Your task to perform on an android device: Open notification settings Image 0: 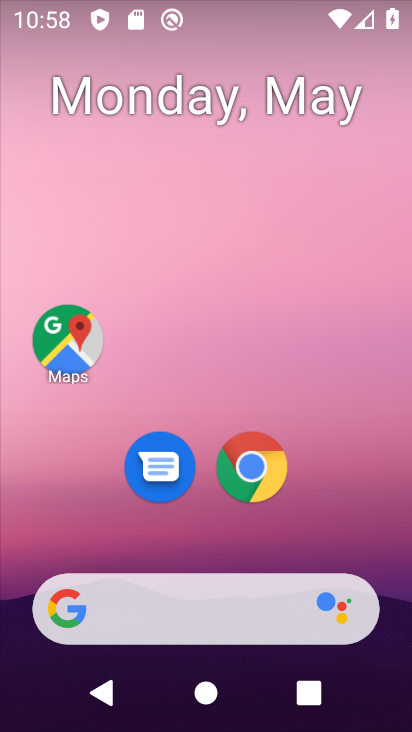
Step 0: drag from (380, 516) to (339, 163)
Your task to perform on an android device: Open notification settings Image 1: 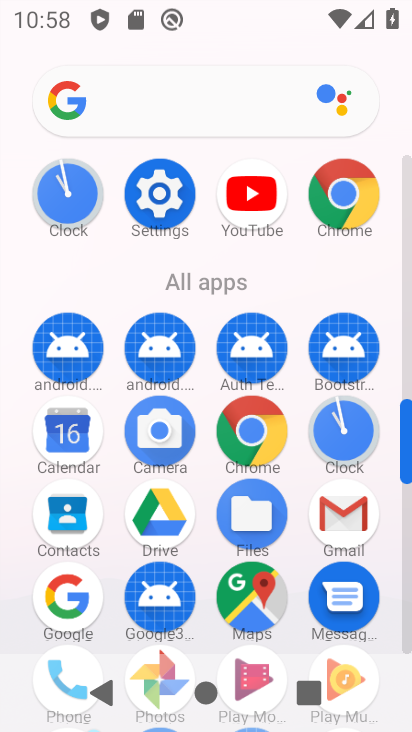
Step 1: click (168, 229)
Your task to perform on an android device: Open notification settings Image 2: 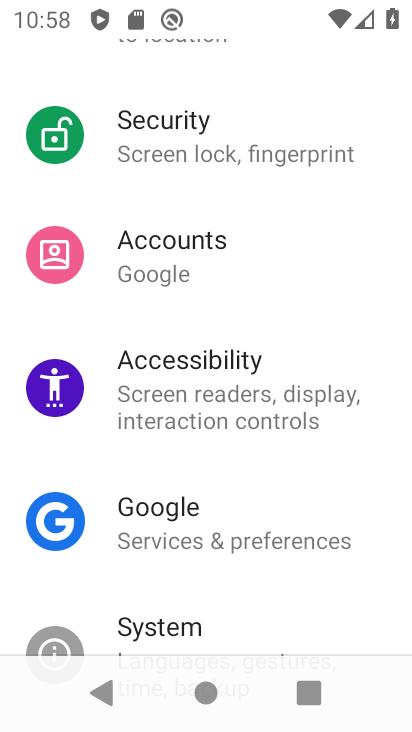
Step 2: drag from (254, 310) to (287, 694)
Your task to perform on an android device: Open notification settings Image 3: 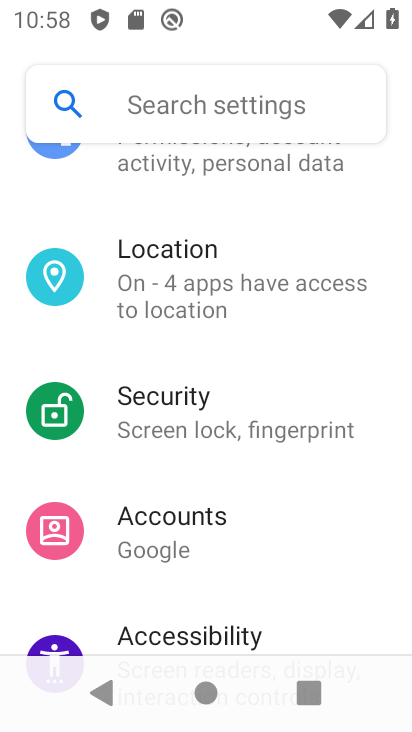
Step 3: drag from (260, 291) to (377, 693)
Your task to perform on an android device: Open notification settings Image 4: 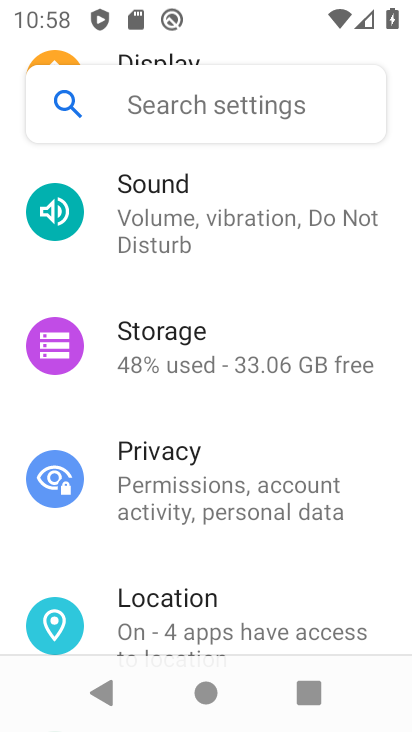
Step 4: drag from (264, 266) to (313, 713)
Your task to perform on an android device: Open notification settings Image 5: 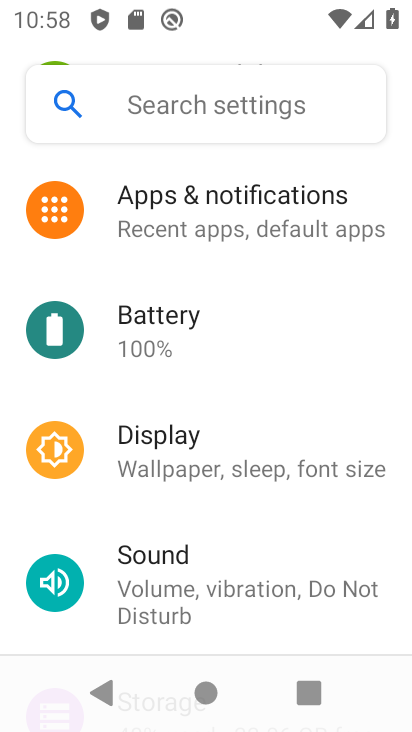
Step 5: click (300, 239)
Your task to perform on an android device: Open notification settings Image 6: 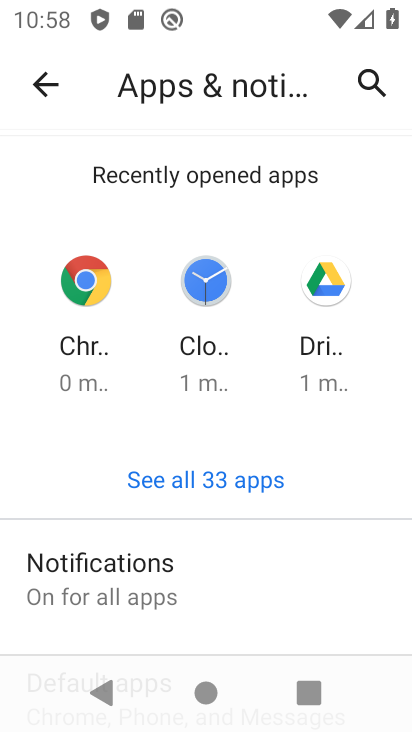
Step 6: task complete